Your task to perform on an android device: visit the assistant section in the google photos Image 0: 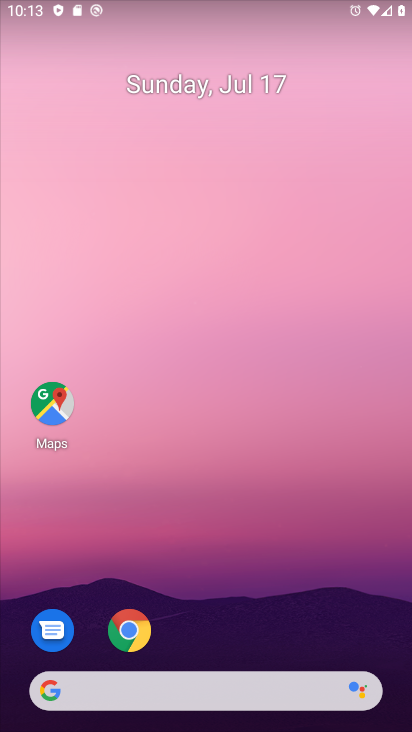
Step 0: drag from (331, 629) to (345, 56)
Your task to perform on an android device: visit the assistant section in the google photos Image 1: 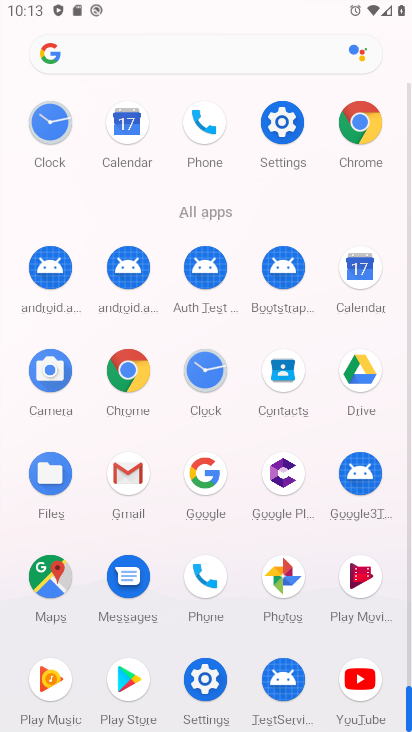
Step 1: click (282, 577)
Your task to perform on an android device: visit the assistant section in the google photos Image 2: 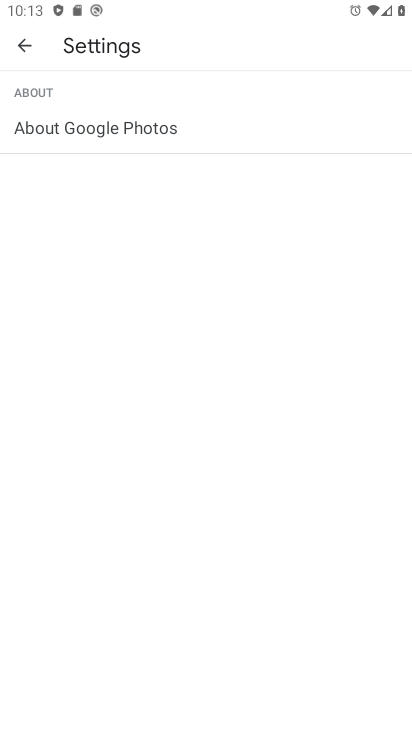
Step 2: press back button
Your task to perform on an android device: visit the assistant section in the google photos Image 3: 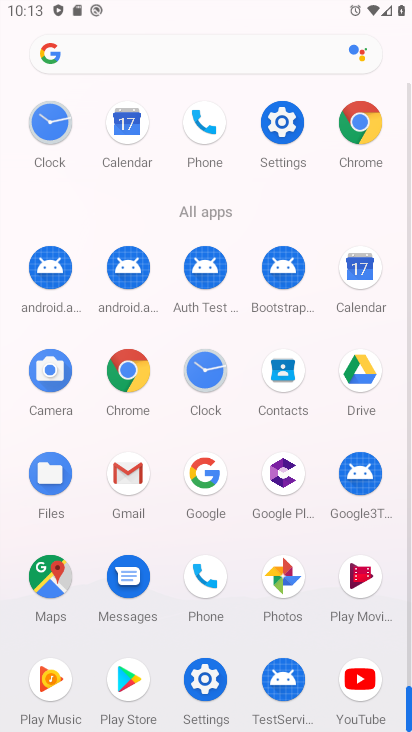
Step 3: click (290, 578)
Your task to perform on an android device: visit the assistant section in the google photos Image 4: 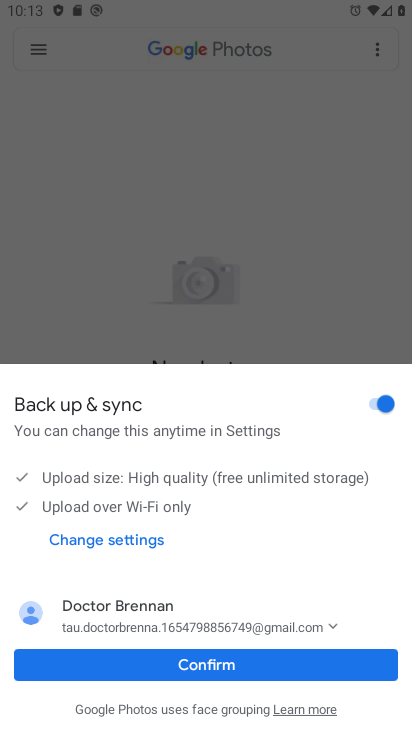
Step 4: click (290, 661)
Your task to perform on an android device: visit the assistant section in the google photos Image 5: 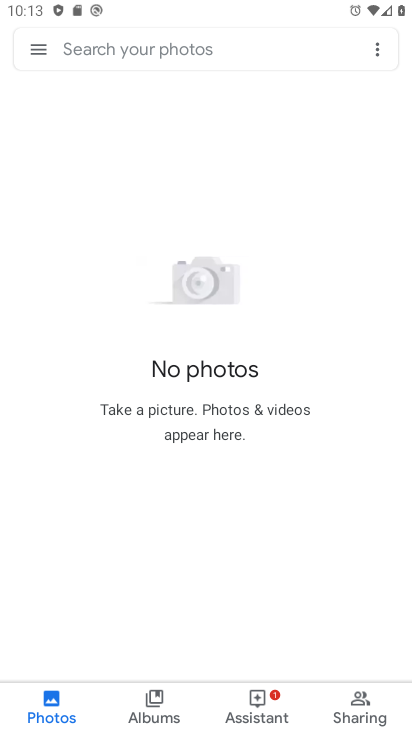
Step 5: click (254, 709)
Your task to perform on an android device: visit the assistant section in the google photos Image 6: 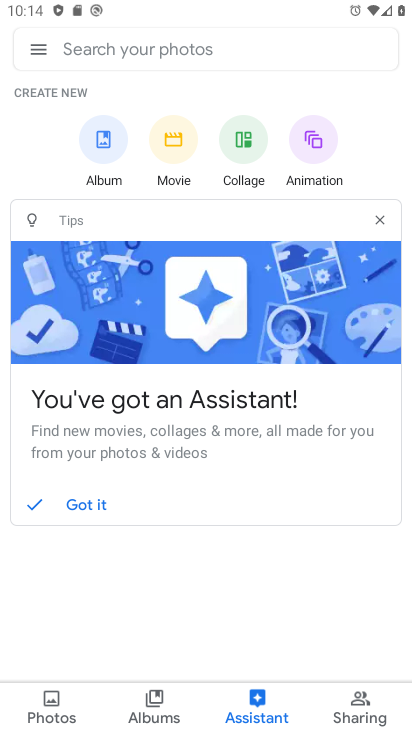
Step 6: task complete